Your task to perform on an android device: toggle sleep mode Image 0: 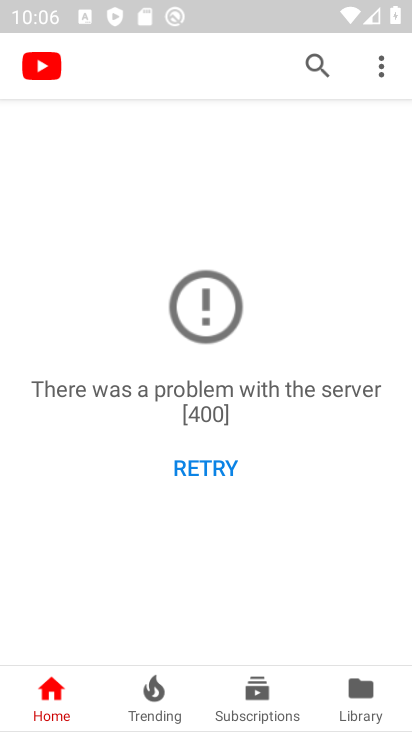
Step 0: press home button
Your task to perform on an android device: toggle sleep mode Image 1: 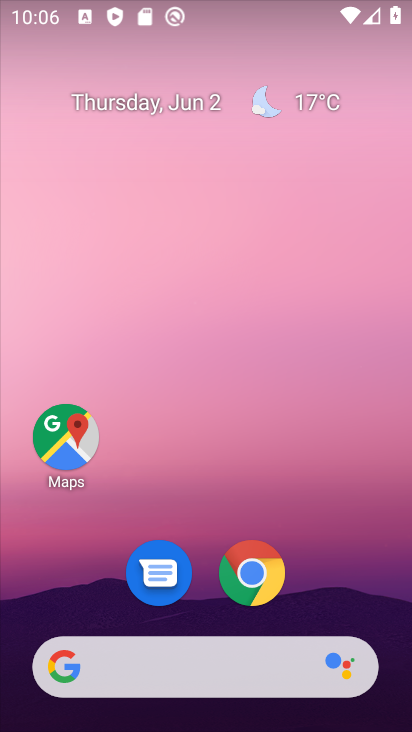
Step 1: drag from (313, 273) to (263, 0)
Your task to perform on an android device: toggle sleep mode Image 2: 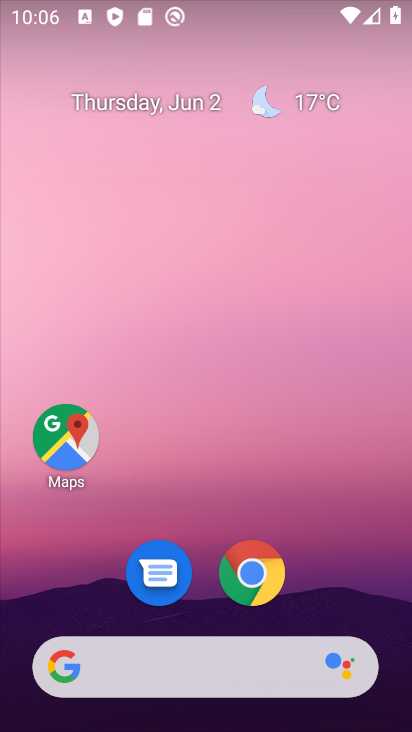
Step 2: drag from (322, 392) to (240, 6)
Your task to perform on an android device: toggle sleep mode Image 3: 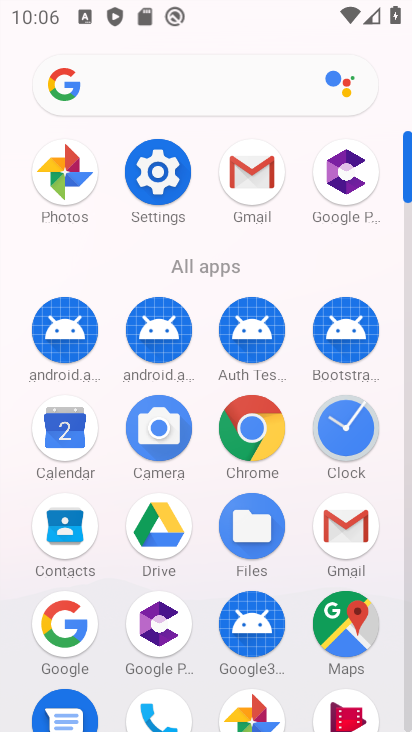
Step 3: click (166, 164)
Your task to perform on an android device: toggle sleep mode Image 4: 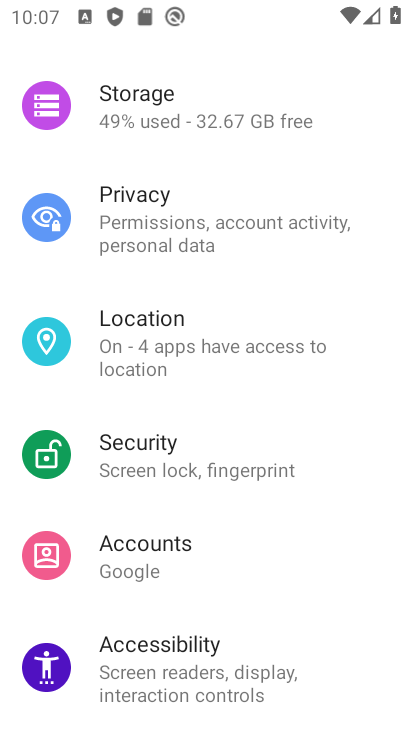
Step 4: drag from (245, 267) to (301, 625)
Your task to perform on an android device: toggle sleep mode Image 5: 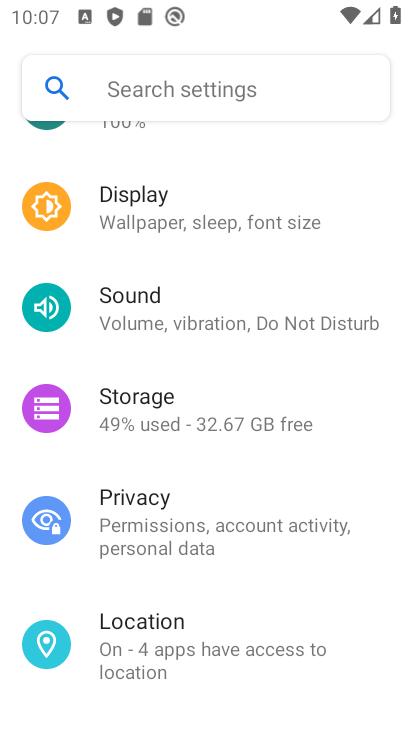
Step 5: drag from (198, 294) to (274, 621)
Your task to perform on an android device: toggle sleep mode Image 6: 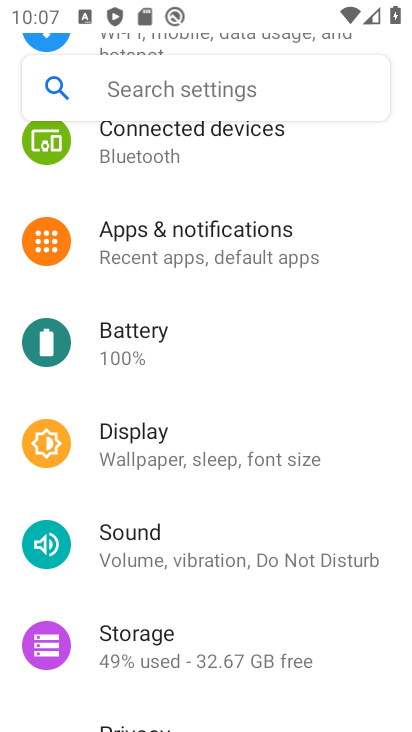
Step 6: click (181, 455)
Your task to perform on an android device: toggle sleep mode Image 7: 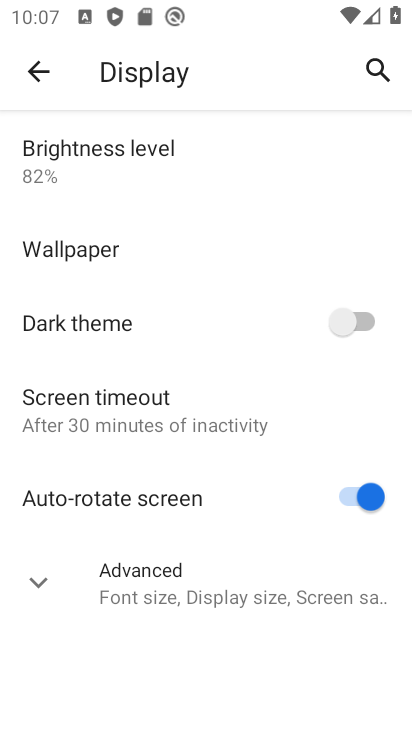
Step 7: click (111, 417)
Your task to perform on an android device: toggle sleep mode Image 8: 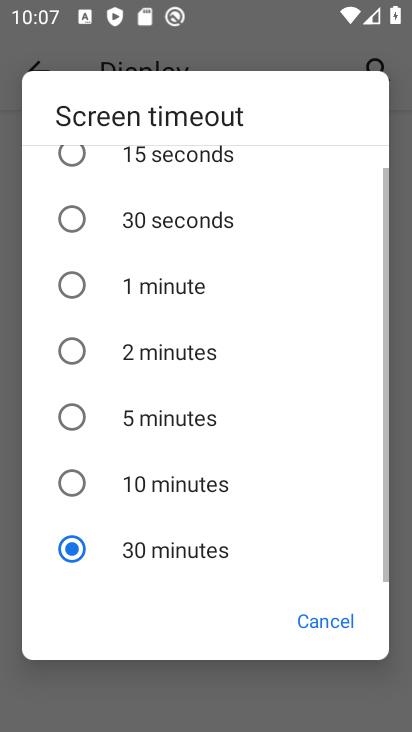
Step 8: click (118, 357)
Your task to perform on an android device: toggle sleep mode Image 9: 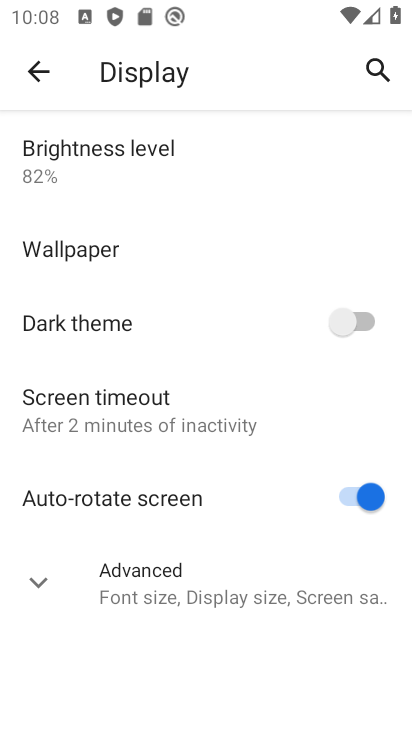
Step 9: task complete